Your task to perform on an android device: turn pop-ups on in chrome Image 0: 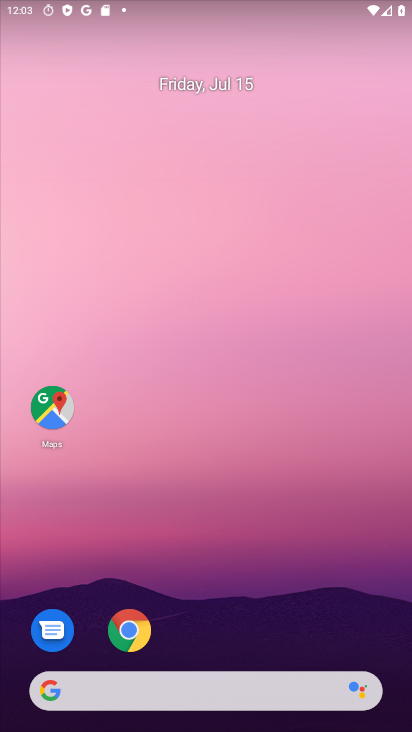
Step 0: drag from (206, 626) to (286, 211)
Your task to perform on an android device: turn pop-ups on in chrome Image 1: 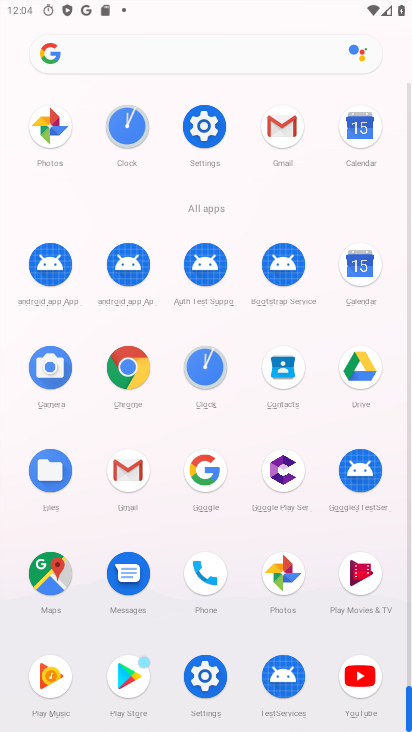
Step 1: drag from (184, 613) to (178, 230)
Your task to perform on an android device: turn pop-ups on in chrome Image 2: 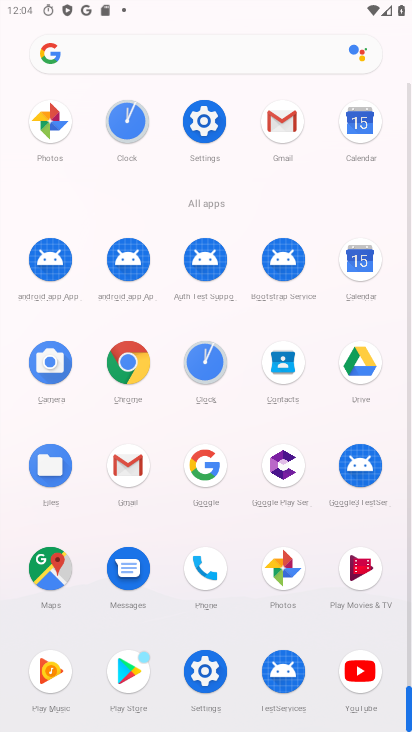
Step 2: click (133, 363)
Your task to perform on an android device: turn pop-ups on in chrome Image 3: 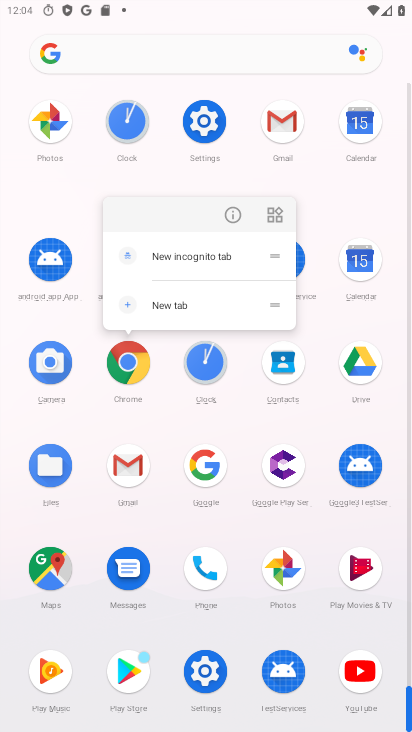
Step 3: click (231, 214)
Your task to perform on an android device: turn pop-ups on in chrome Image 4: 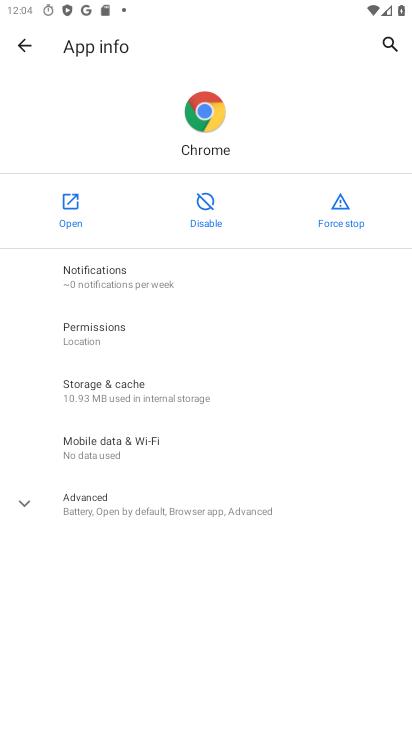
Step 4: click (83, 218)
Your task to perform on an android device: turn pop-ups on in chrome Image 5: 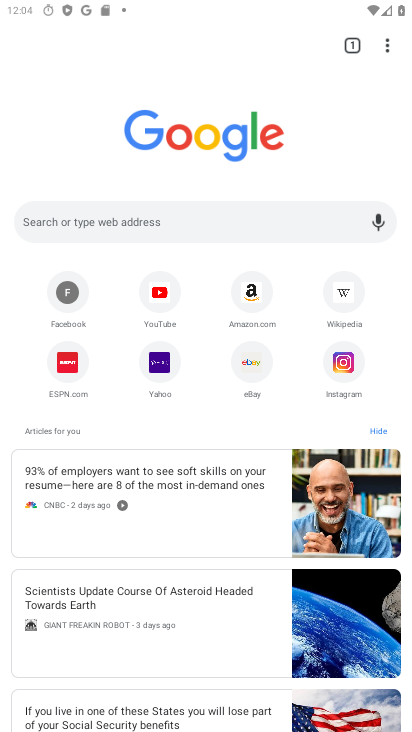
Step 5: drag from (231, 478) to (234, 317)
Your task to perform on an android device: turn pop-ups on in chrome Image 6: 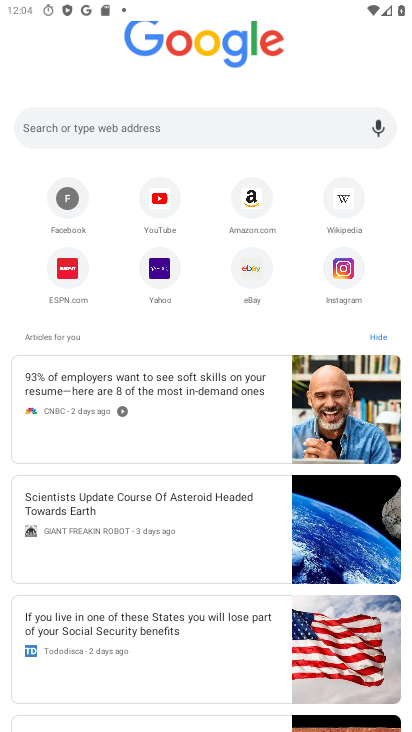
Step 6: drag from (380, 73) to (377, 335)
Your task to perform on an android device: turn pop-ups on in chrome Image 7: 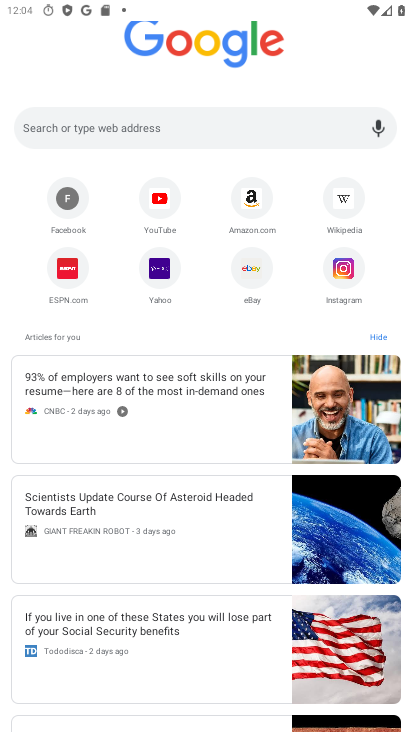
Step 7: drag from (186, 85) to (255, 446)
Your task to perform on an android device: turn pop-ups on in chrome Image 8: 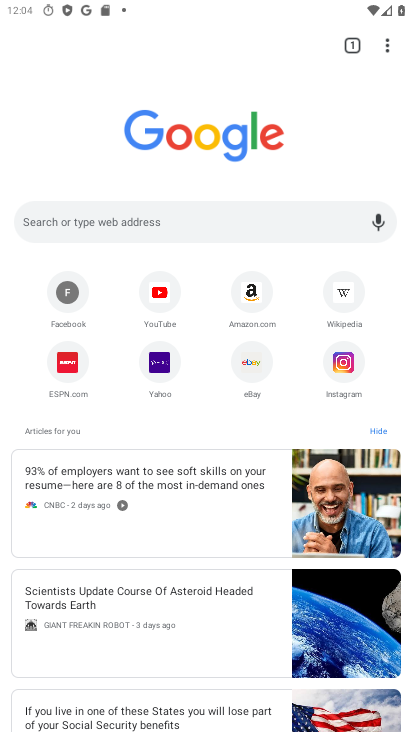
Step 8: drag from (392, 47) to (257, 380)
Your task to perform on an android device: turn pop-ups on in chrome Image 9: 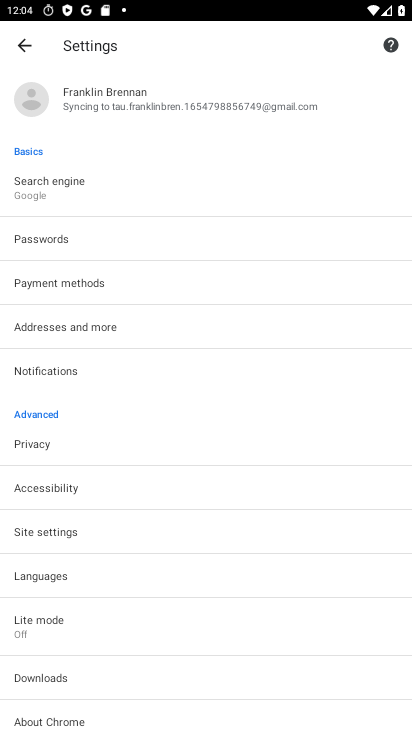
Step 9: drag from (153, 599) to (278, 281)
Your task to perform on an android device: turn pop-ups on in chrome Image 10: 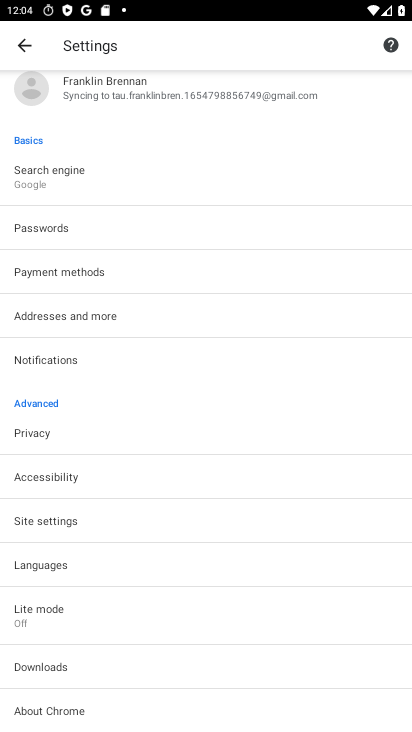
Step 10: drag from (57, 595) to (146, 312)
Your task to perform on an android device: turn pop-ups on in chrome Image 11: 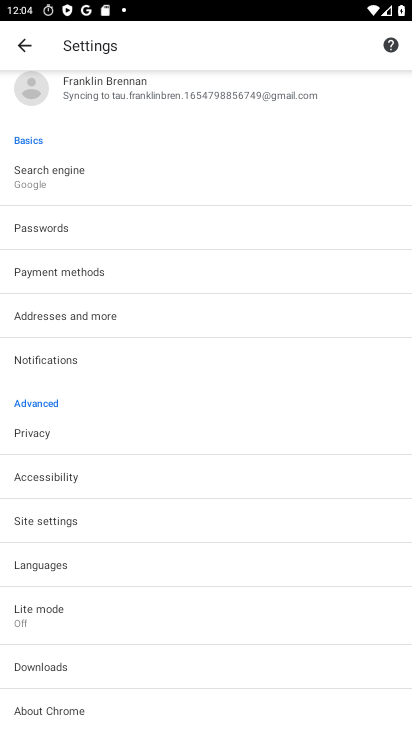
Step 11: click (127, 520)
Your task to perform on an android device: turn pop-ups on in chrome Image 12: 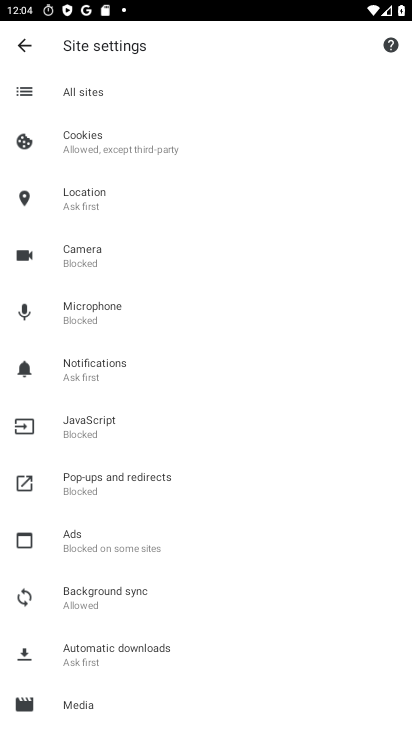
Step 12: drag from (163, 554) to (291, 275)
Your task to perform on an android device: turn pop-ups on in chrome Image 13: 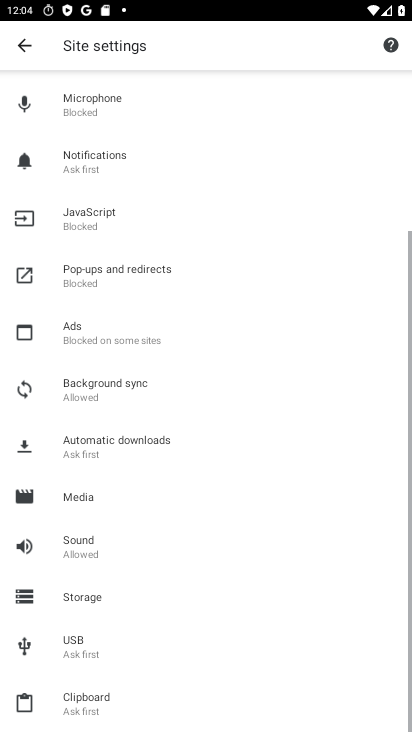
Step 13: drag from (219, 301) to (301, 627)
Your task to perform on an android device: turn pop-ups on in chrome Image 14: 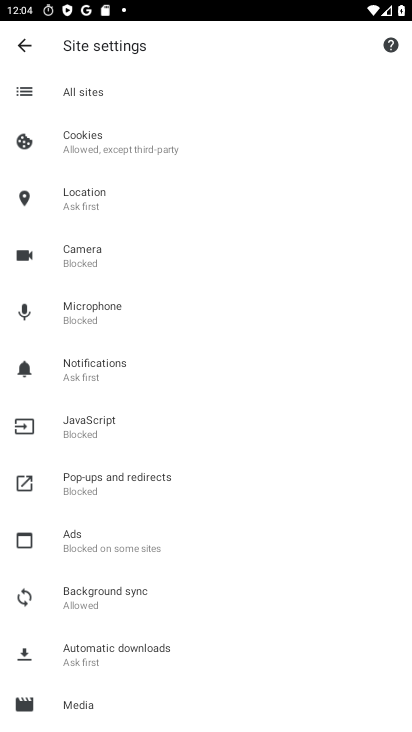
Step 14: drag from (208, 566) to (305, 233)
Your task to perform on an android device: turn pop-ups on in chrome Image 15: 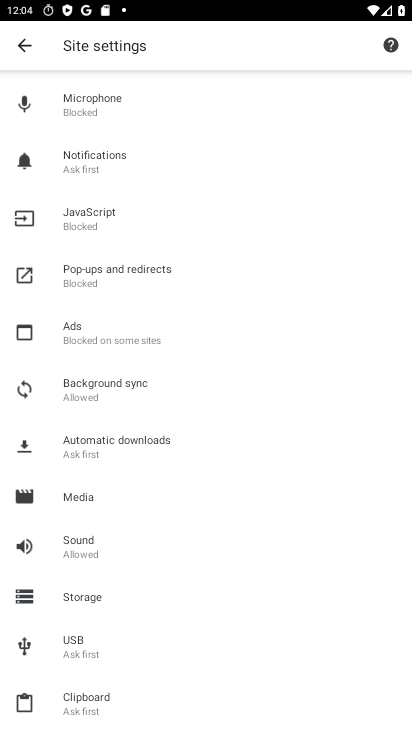
Step 15: click (125, 267)
Your task to perform on an android device: turn pop-ups on in chrome Image 16: 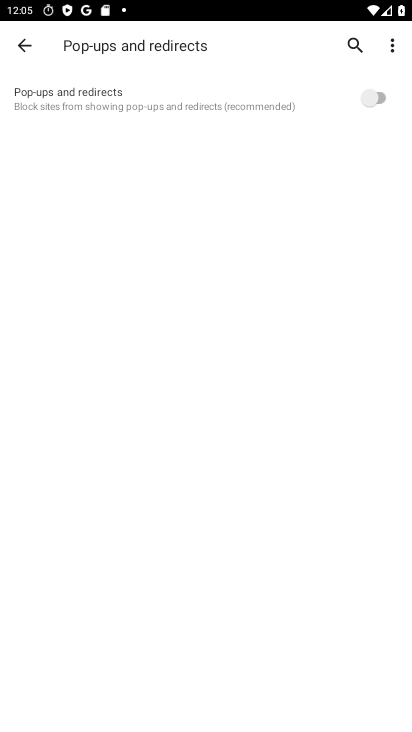
Step 16: click (346, 105)
Your task to perform on an android device: turn pop-ups on in chrome Image 17: 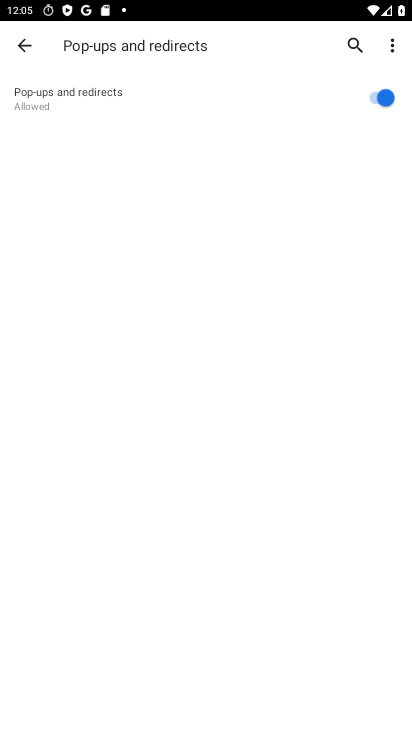
Step 17: task complete